Your task to perform on an android device: turn on translation in the chrome app Image 0: 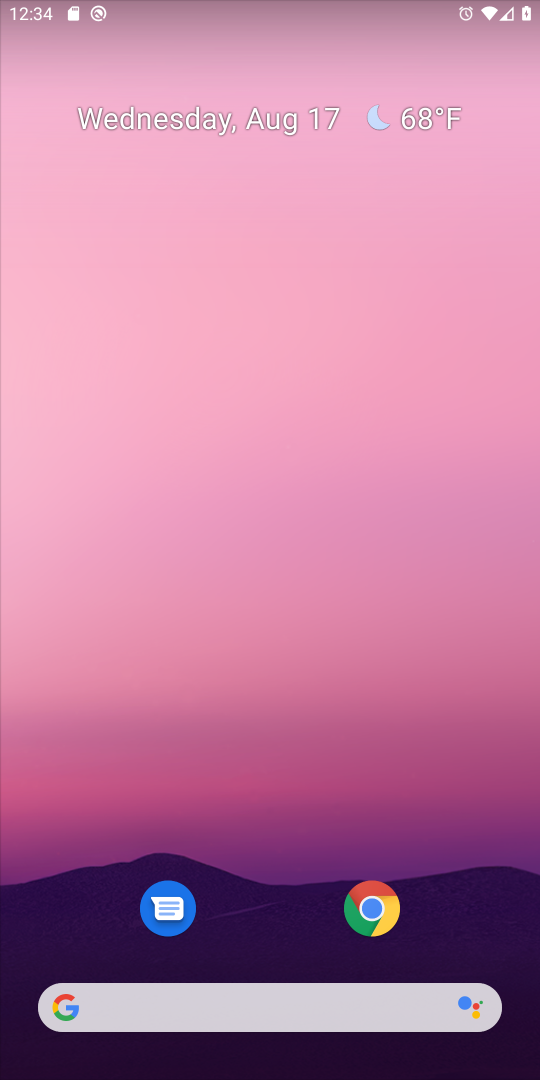
Step 0: click (382, 900)
Your task to perform on an android device: turn on translation in the chrome app Image 1: 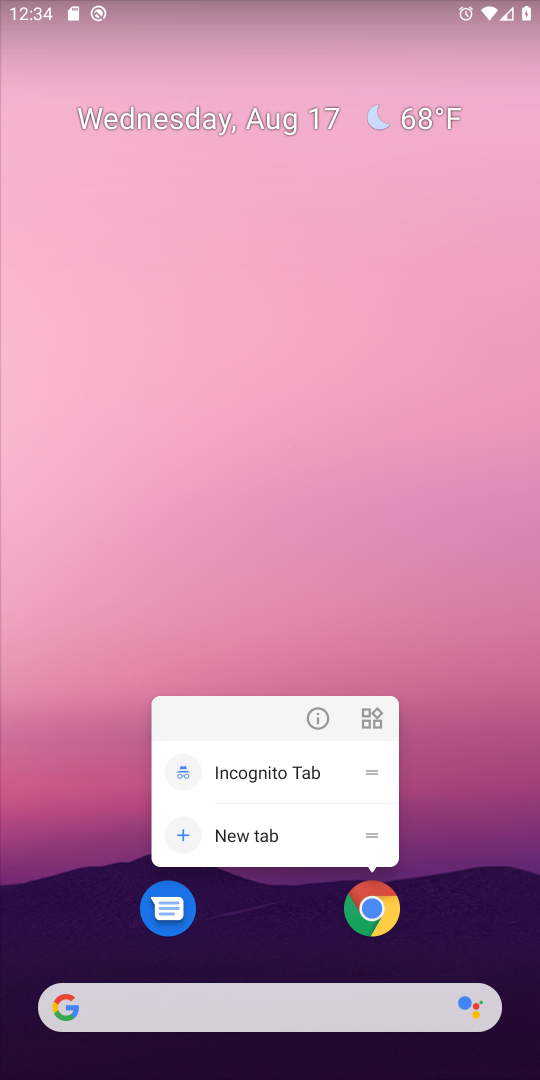
Step 1: click (372, 892)
Your task to perform on an android device: turn on translation in the chrome app Image 2: 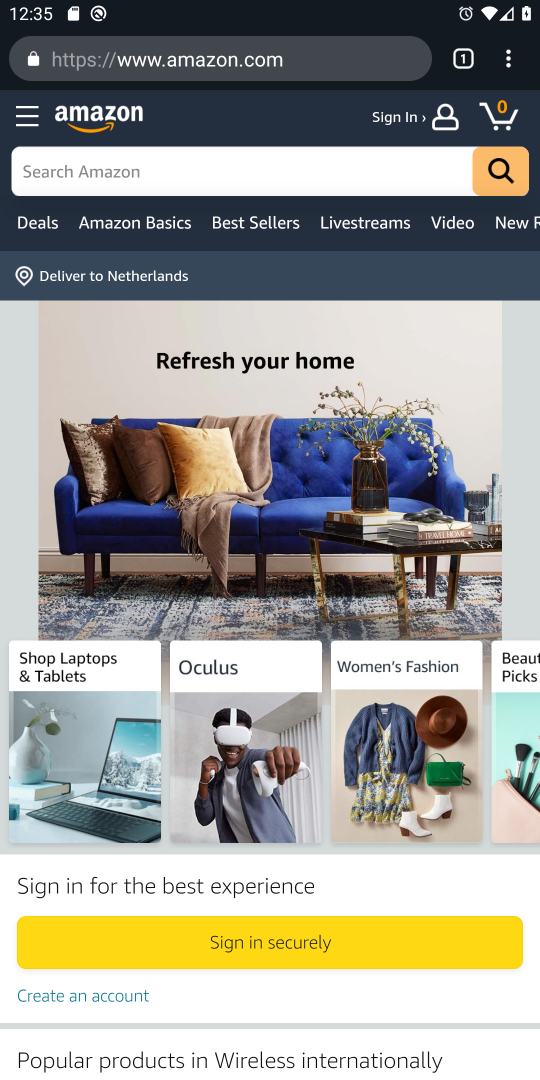
Step 2: click (502, 66)
Your task to perform on an android device: turn on translation in the chrome app Image 3: 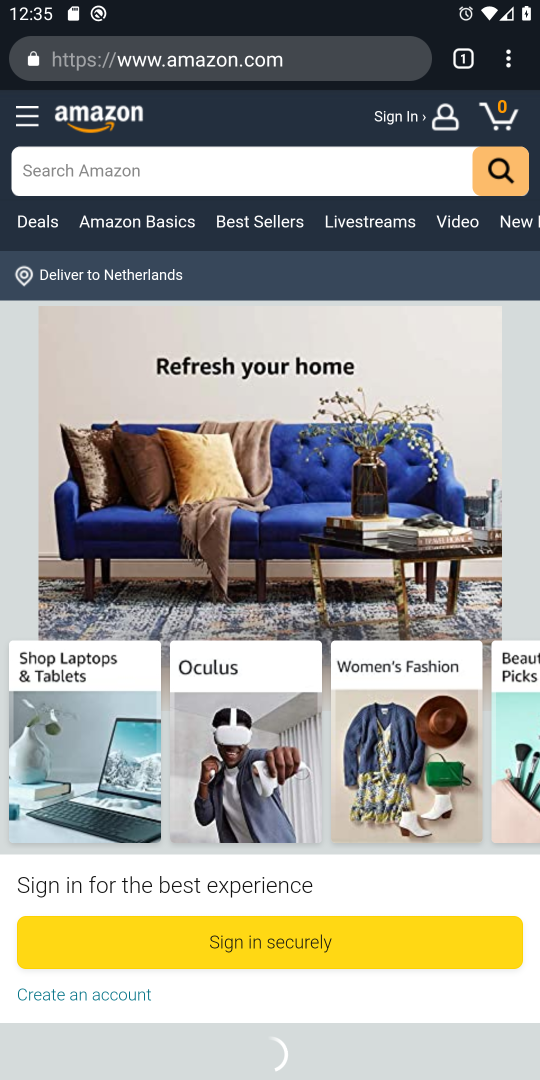
Step 3: click (512, 72)
Your task to perform on an android device: turn on translation in the chrome app Image 4: 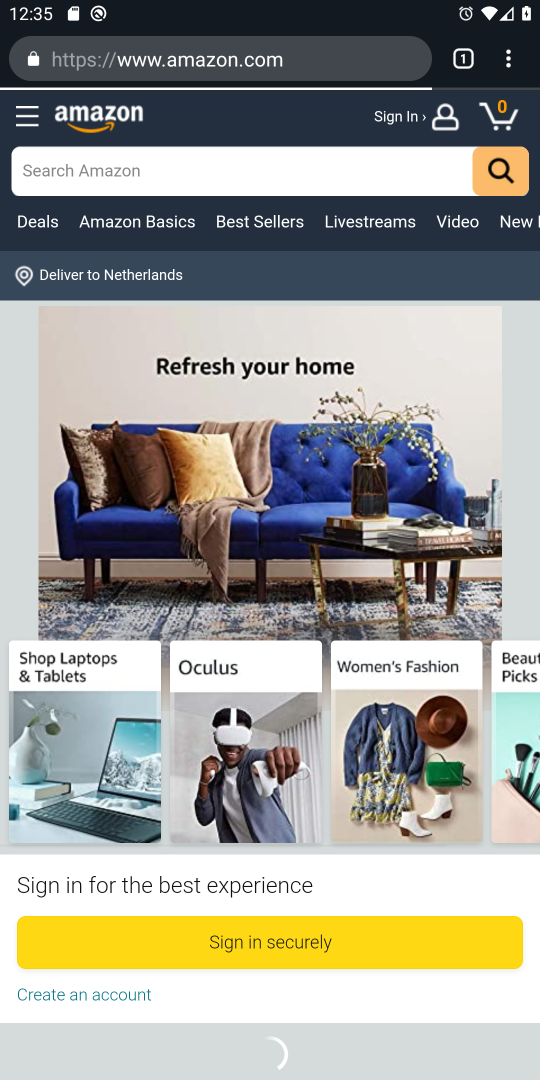
Step 4: click (512, 72)
Your task to perform on an android device: turn on translation in the chrome app Image 5: 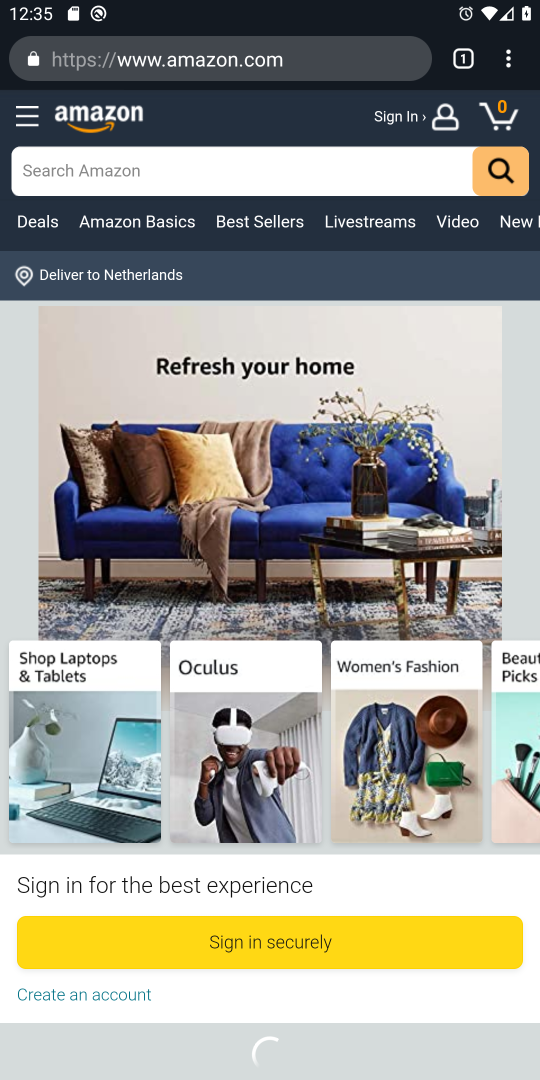
Step 5: click (509, 57)
Your task to perform on an android device: turn on translation in the chrome app Image 6: 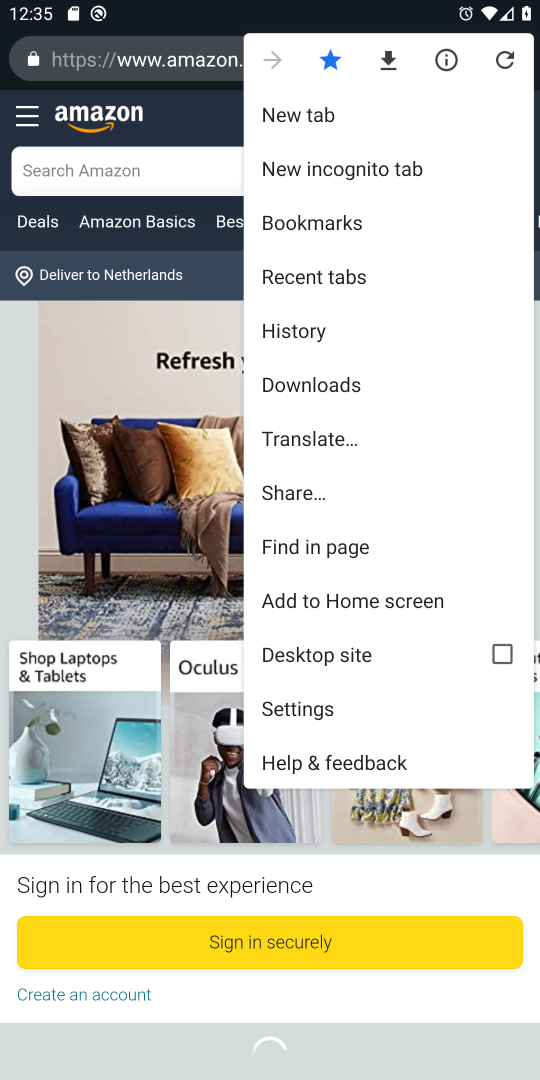
Step 6: click (301, 702)
Your task to perform on an android device: turn on translation in the chrome app Image 7: 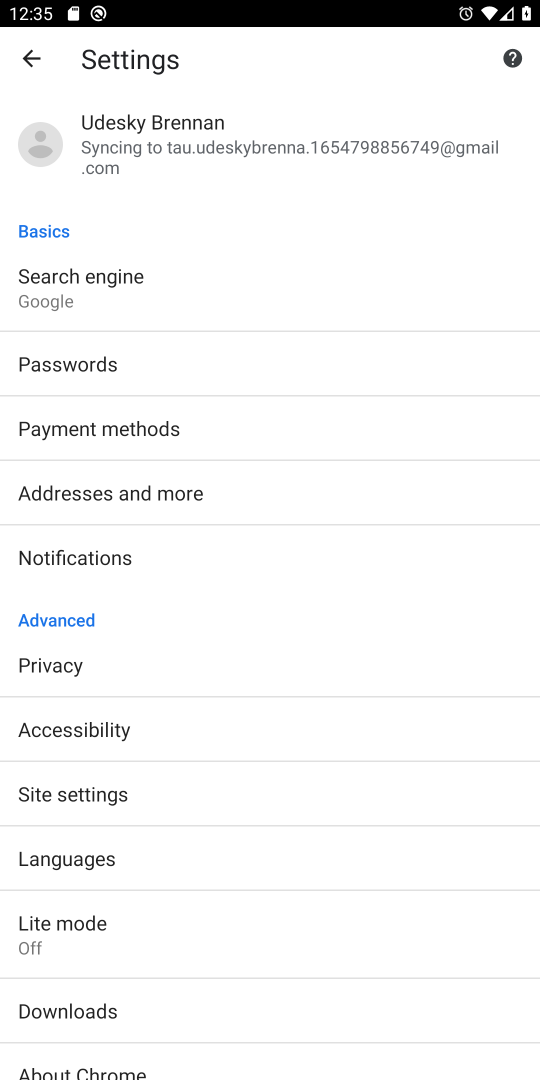
Step 7: click (115, 868)
Your task to perform on an android device: turn on translation in the chrome app Image 8: 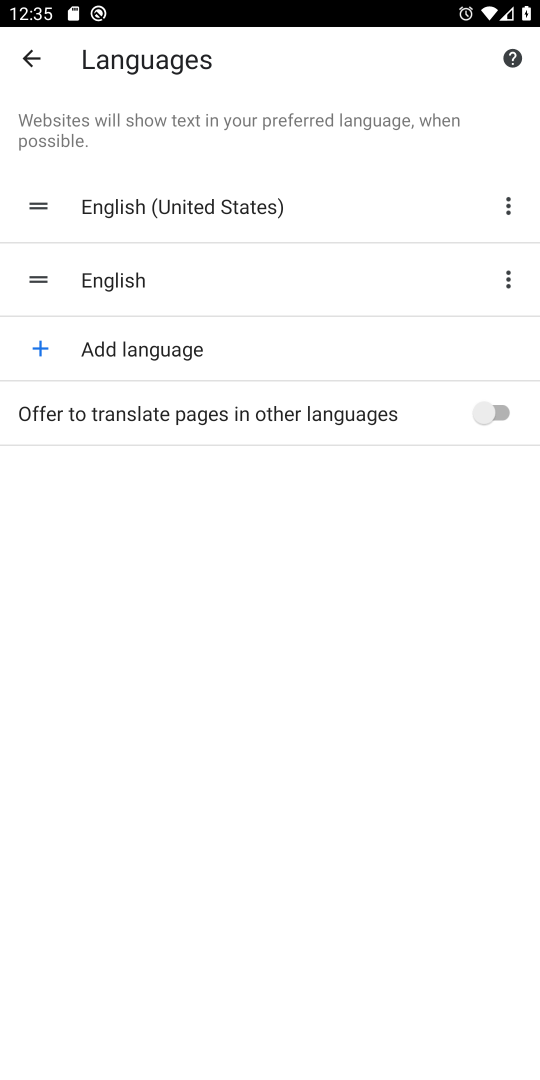
Step 8: click (509, 409)
Your task to perform on an android device: turn on translation in the chrome app Image 9: 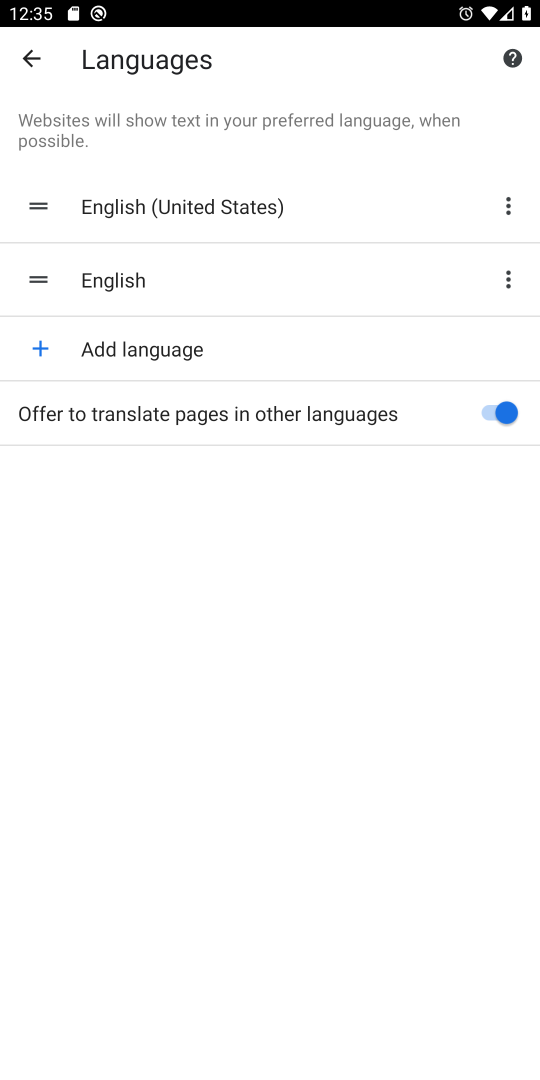
Step 9: task complete